Your task to perform on an android device: make emails show in primary in the gmail app Image 0: 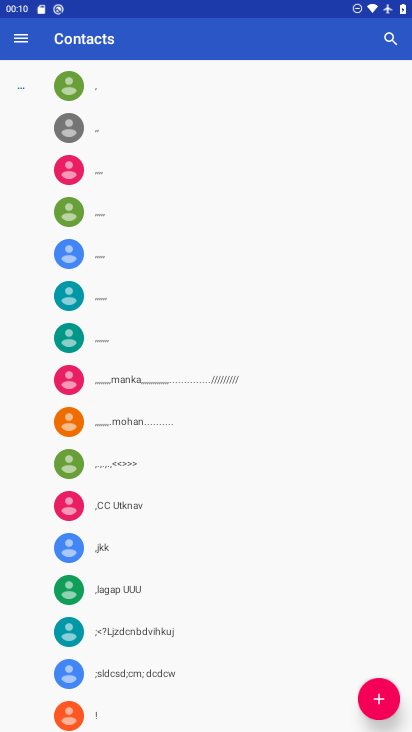
Step 0: press home button
Your task to perform on an android device: make emails show in primary in the gmail app Image 1: 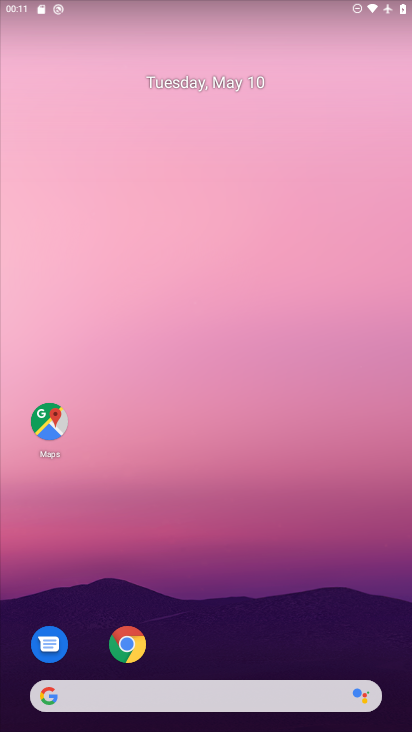
Step 1: drag from (207, 614) to (212, 235)
Your task to perform on an android device: make emails show in primary in the gmail app Image 2: 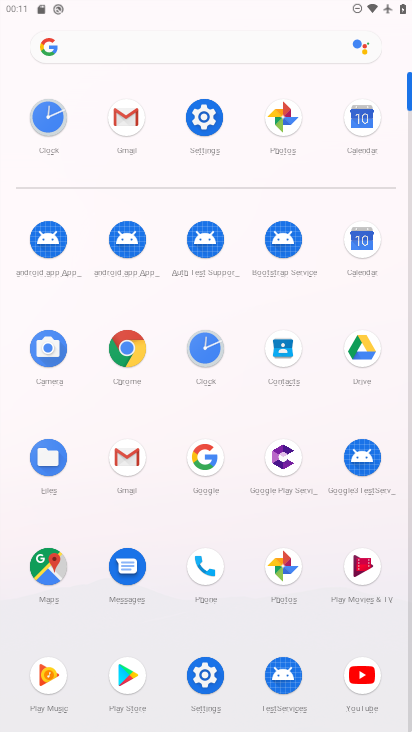
Step 2: click (142, 113)
Your task to perform on an android device: make emails show in primary in the gmail app Image 3: 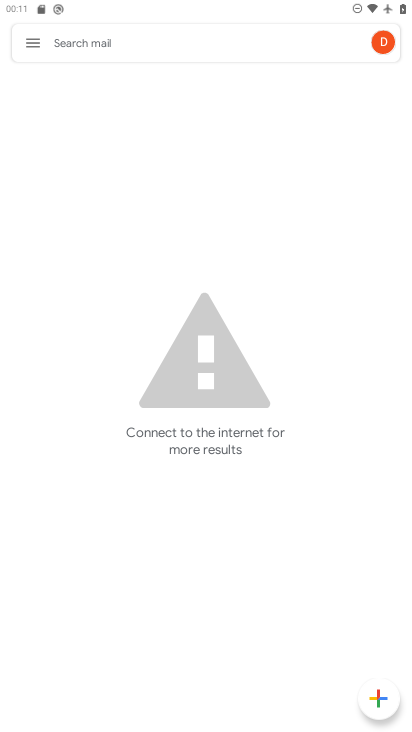
Step 3: press home button
Your task to perform on an android device: make emails show in primary in the gmail app Image 4: 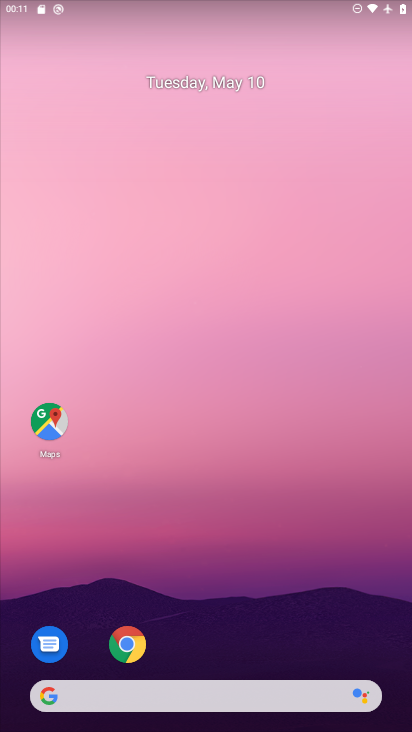
Step 4: drag from (212, 645) to (215, 226)
Your task to perform on an android device: make emails show in primary in the gmail app Image 5: 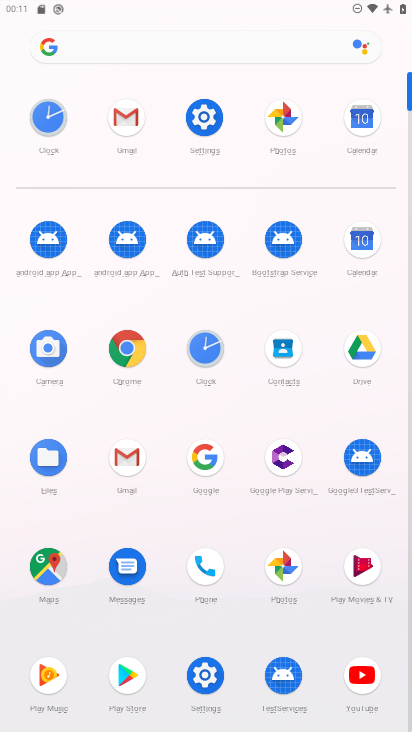
Step 5: click (121, 124)
Your task to perform on an android device: make emails show in primary in the gmail app Image 6: 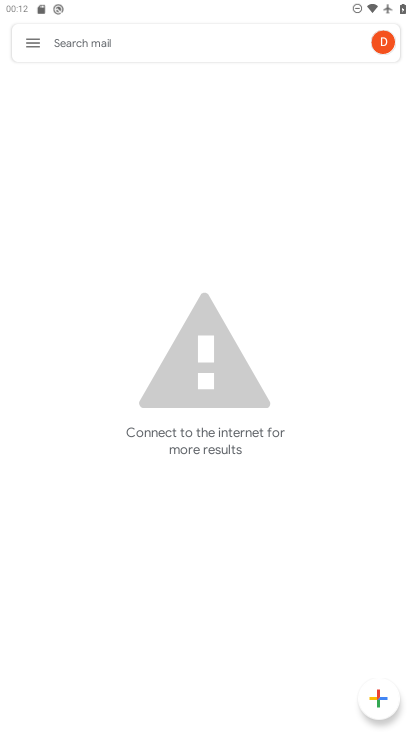
Step 6: click (32, 49)
Your task to perform on an android device: make emails show in primary in the gmail app Image 7: 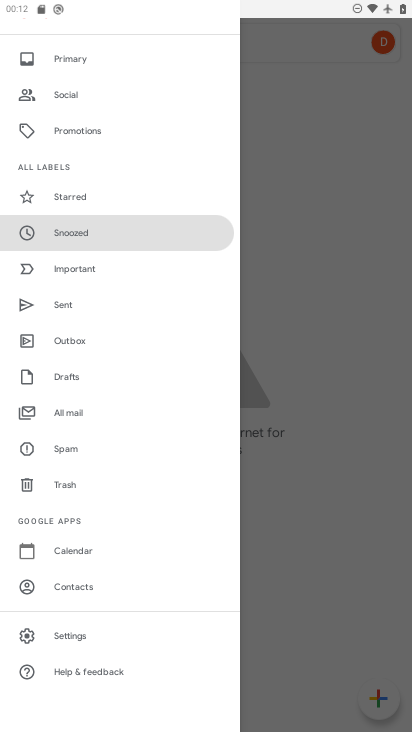
Step 7: click (109, 625)
Your task to perform on an android device: make emails show in primary in the gmail app Image 8: 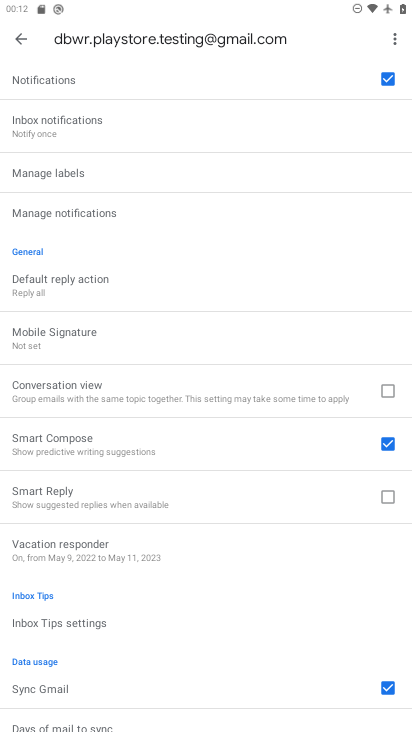
Step 8: drag from (90, 117) to (111, 432)
Your task to perform on an android device: make emails show in primary in the gmail app Image 9: 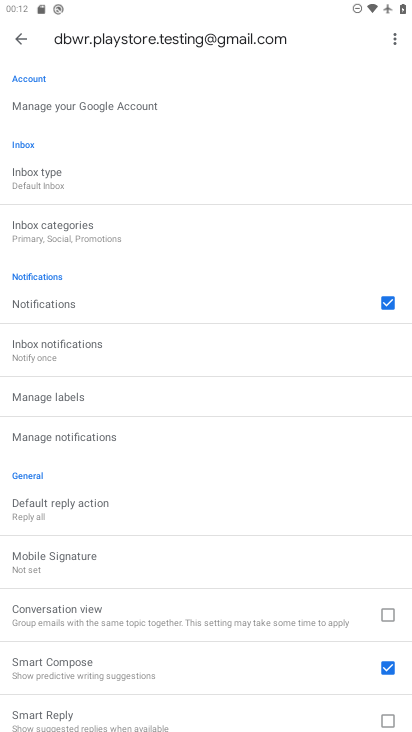
Step 9: click (72, 190)
Your task to perform on an android device: make emails show in primary in the gmail app Image 10: 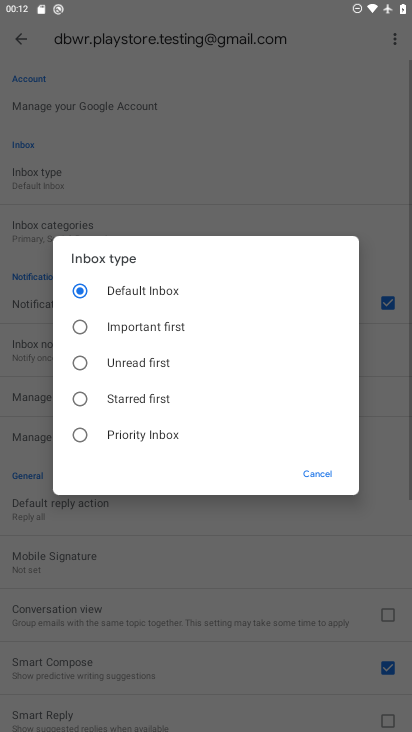
Step 10: click (89, 203)
Your task to perform on an android device: make emails show in primary in the gmail app Image 11: 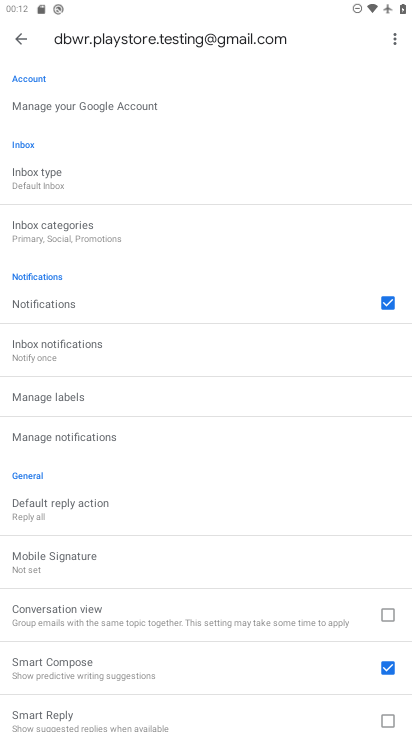
Step 11: task complete